Your task to perform on an android device: Open Android settings Image 0: 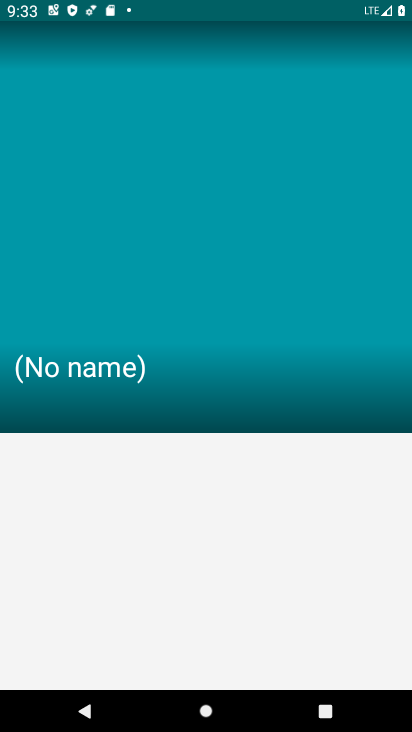
Step 0: drag from (390, 632) to (321, 21)
Your task to perform on an android device: Open Android settings Image 1: 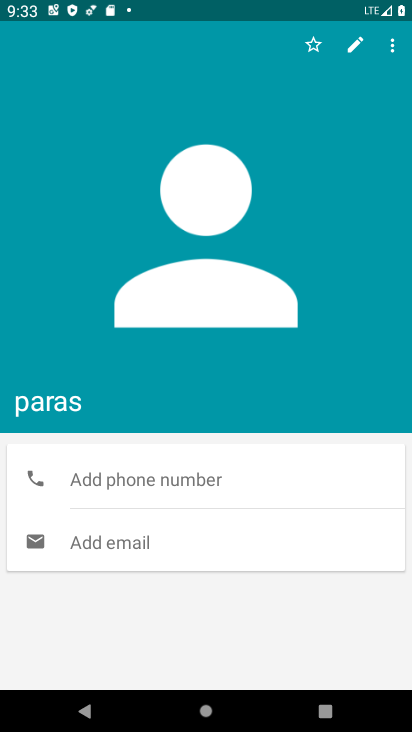
Step 1: press home button
Your task to perform on an android device: Open Android settings Image 2: 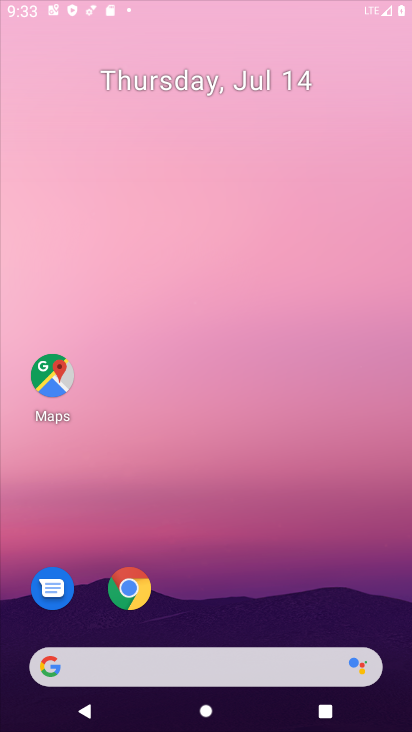
Step 2: drag from (395, 680) to (279, 109)
Your task to perform on an android device: Open Android settings Image 3: 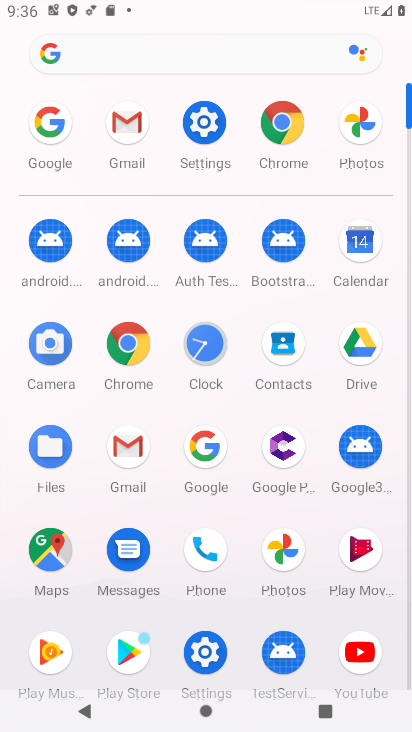
Step 3: click (211, 673)
Your task to perform on an android device: Open Android settings Image 4: 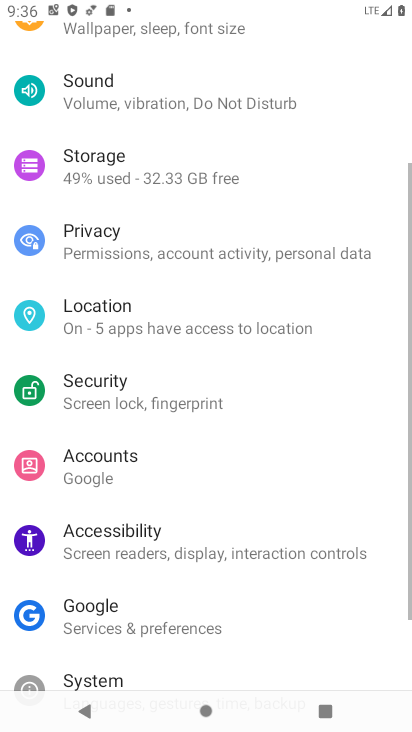
Step 4: task complete